Your task to perform on an android device: Open the web browser Image 0: 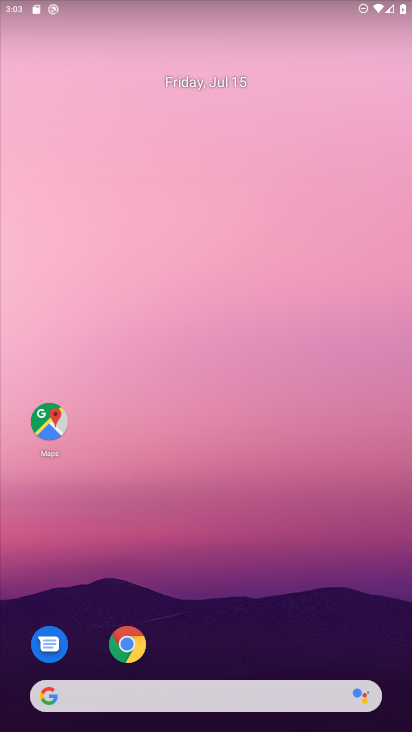
Step 0: press home button
Your task to perform on an android device: Open the web browser Image 1: 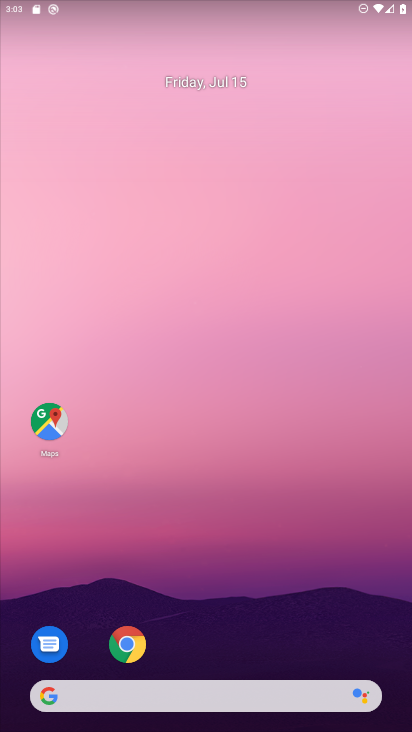
Step 1: task complete